Your task to perform on an android device: check google app version Image 0: 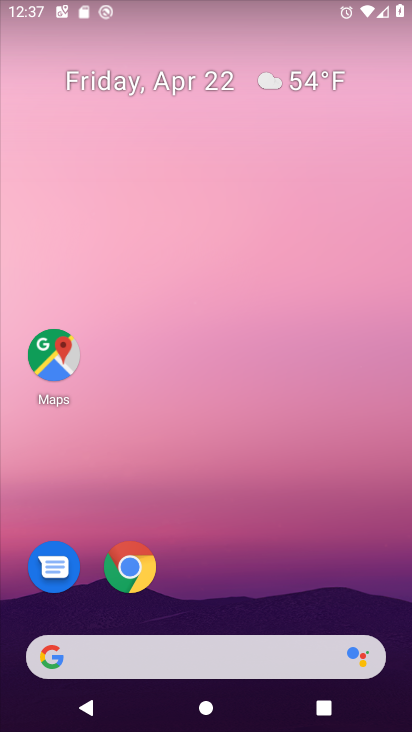
Step 0: drag from (229, 609) to (241, 108)
Your task to perform on an android device: check google app version Image 1: 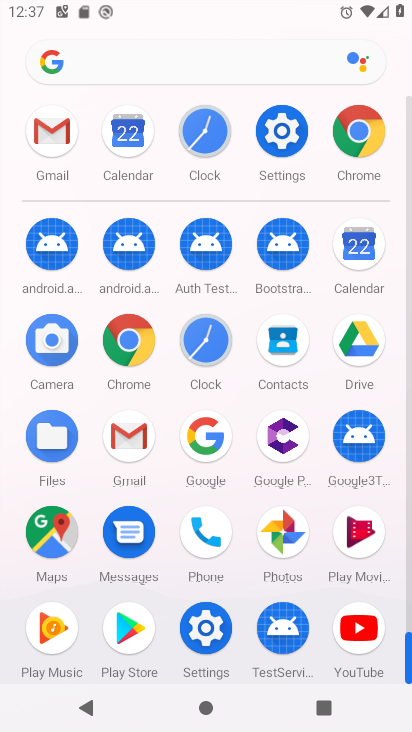
Step 1: click (211, 433)
Your task to perform on an android device: check google app version Image 2: 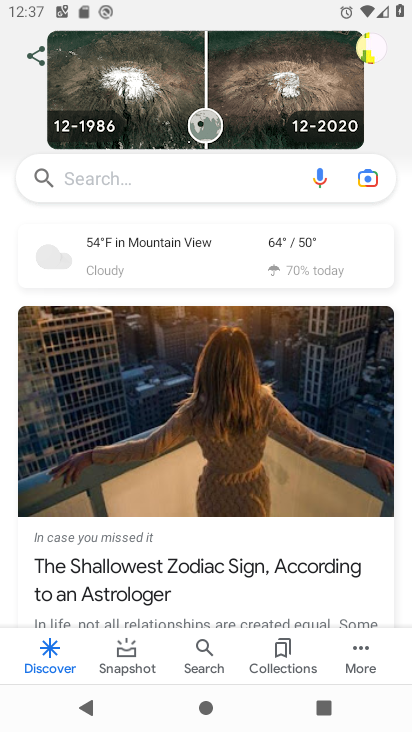
Step 2: drag from (351, 269) to (361, 445)
Your task to perform on an android device: check google app version Image 3: 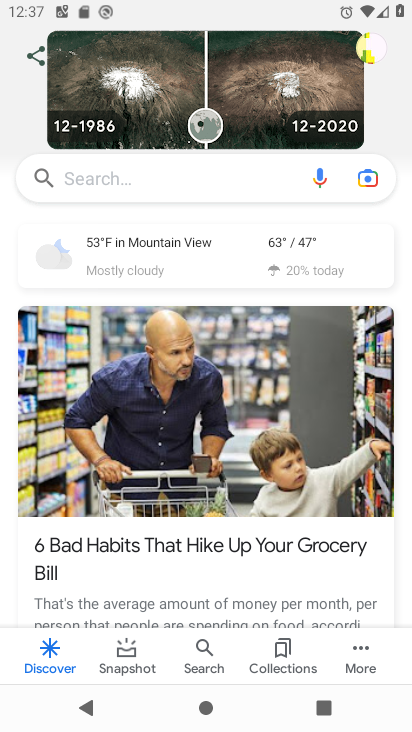
Step 3: click (378, 677)
Your task to perform on an android device: check google app version Image 4: 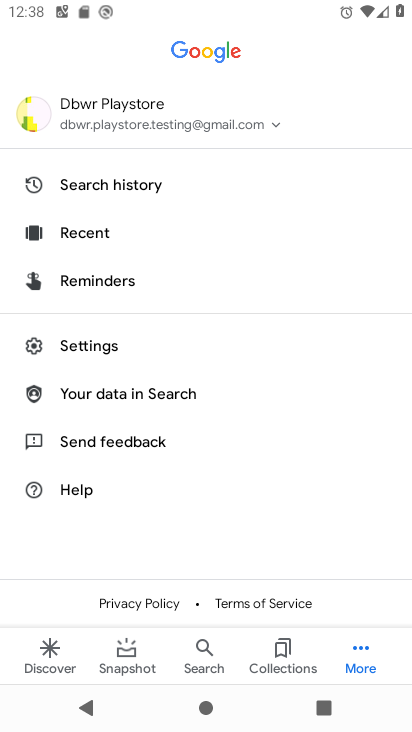
Step 4: click (109, 338)
Your task to perform on an android device: check google app version Image 5: 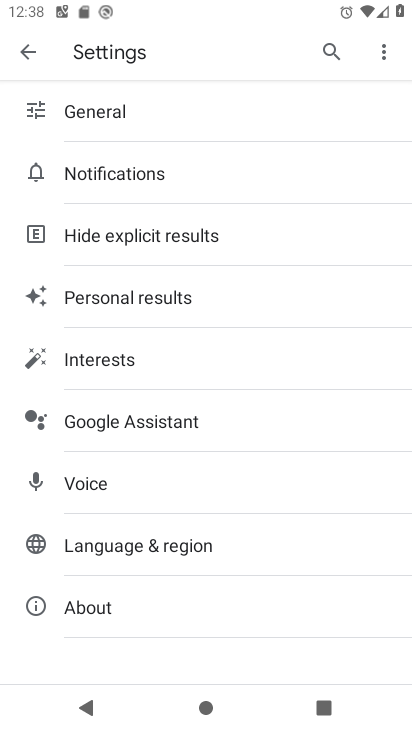
Step 5: click (140, 606)
Your task to perform on an android device: check google app version Image 6: 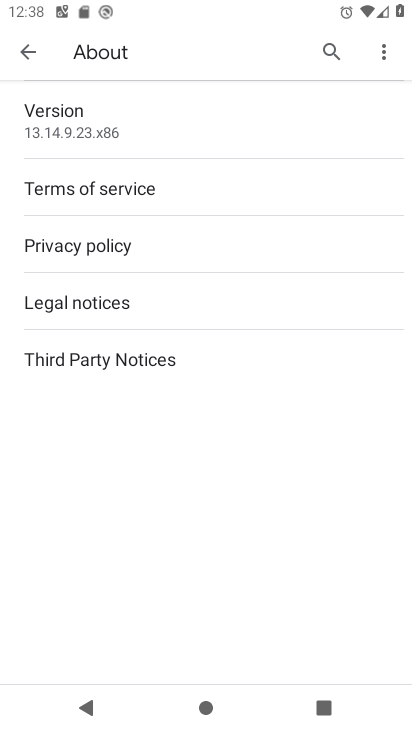
Step 6: task complete